Your task to perform on an android device: show emergency info Image 0: 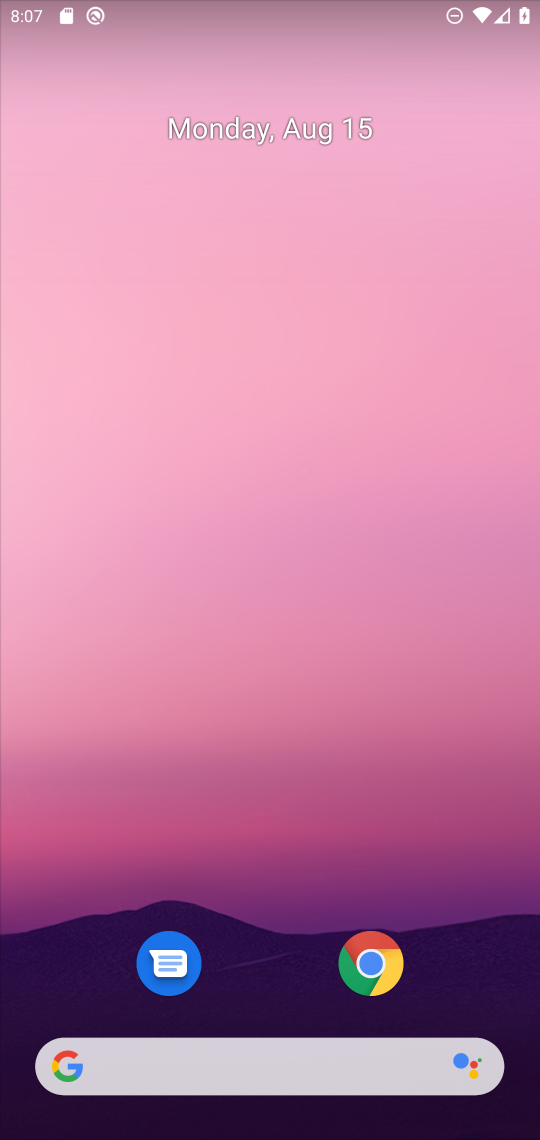
Step 0: drag from (316, 1004) to (375, 715)
Your task to perform on an android device: show emergency info Image 1: 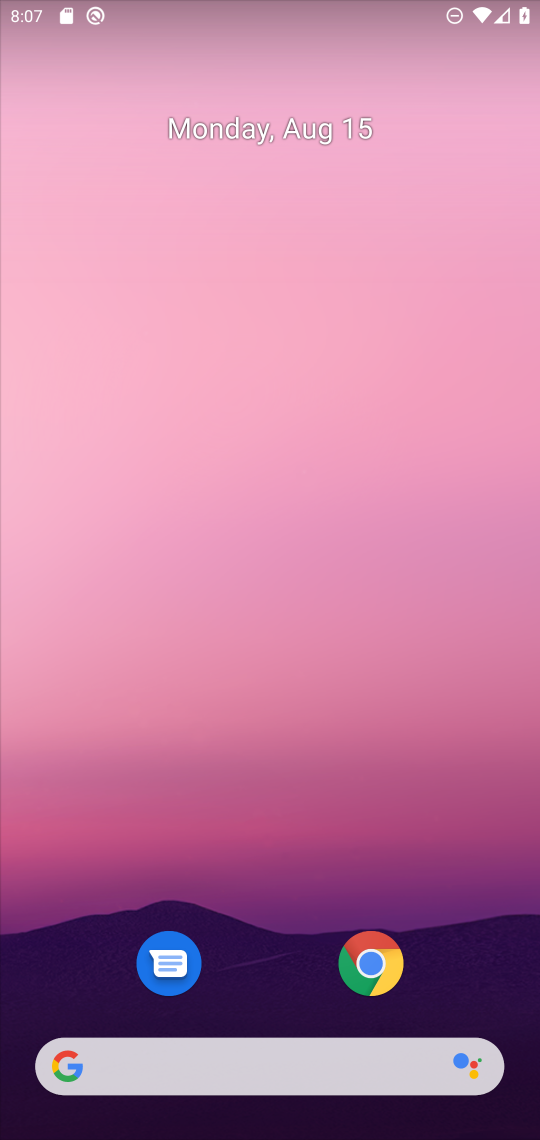
Step 1: drag from (251, 993) to (238, 46)
Your task to perform on an android device: show emergency info Image 2: 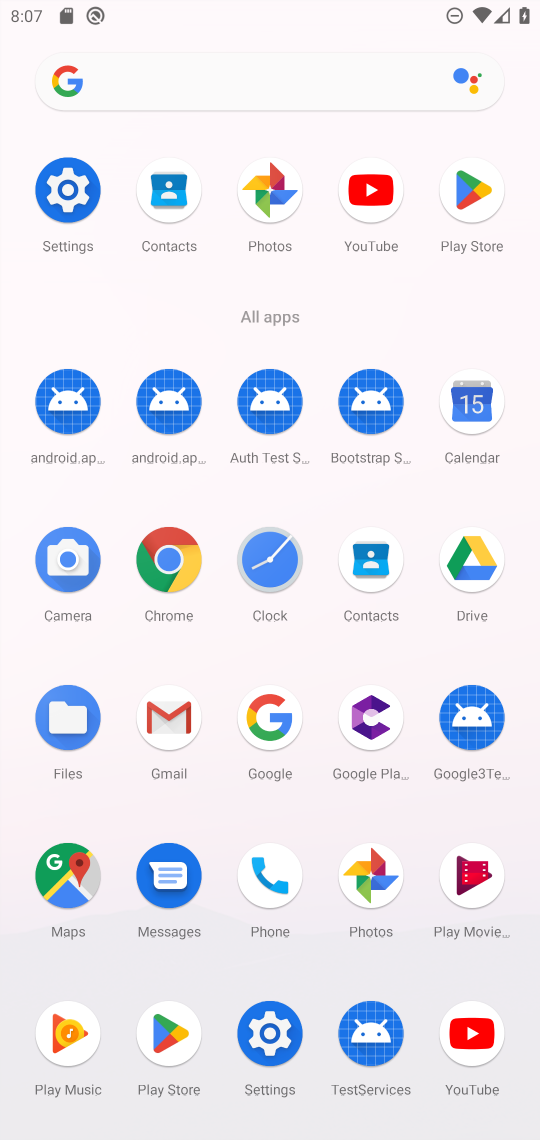
Step 2: click (70, 216)
Your task to perform on an android device: show emergency info Image 3: 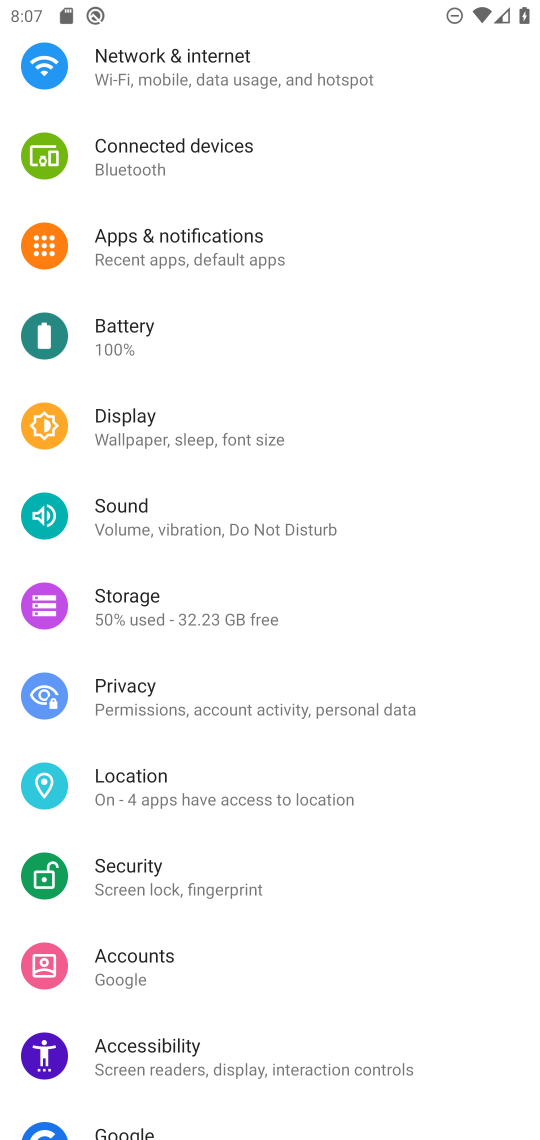
Step 3: drag from (179, 1073) to (236, 443)
Your task to perform on an android device: show emergency info Image 4: 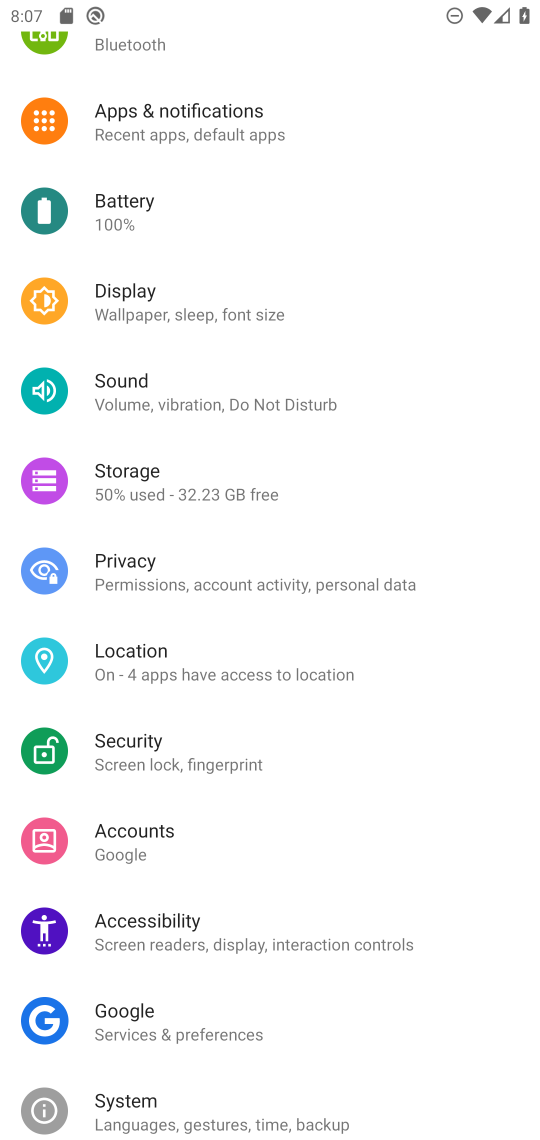
Step 4: click (117, 1110)
Your task to perform on an android device: show emergency info Image 5: 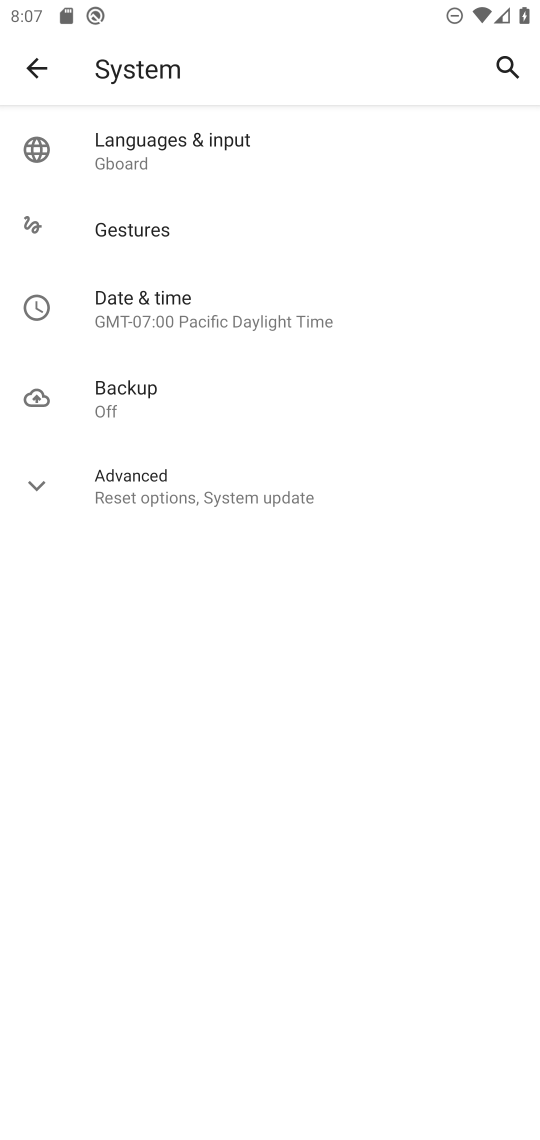
Step 5: click (37, 79)
Your task to perform on an android device: show emergency info Image 6: 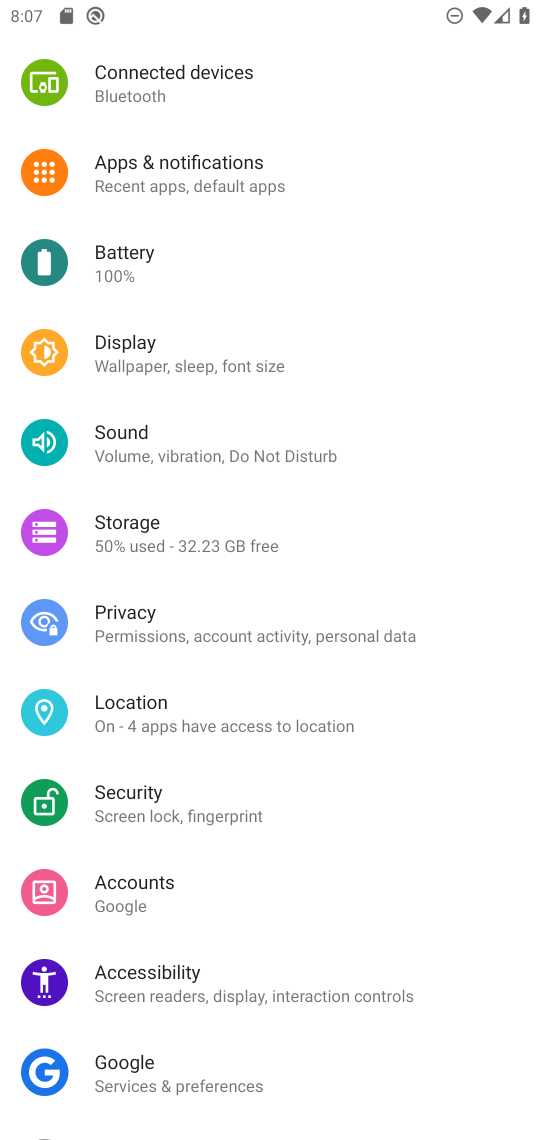
Step 6: drag from (285, 886) to (339, 230)
Your task to perform on an android device: show emergency info Image 7: 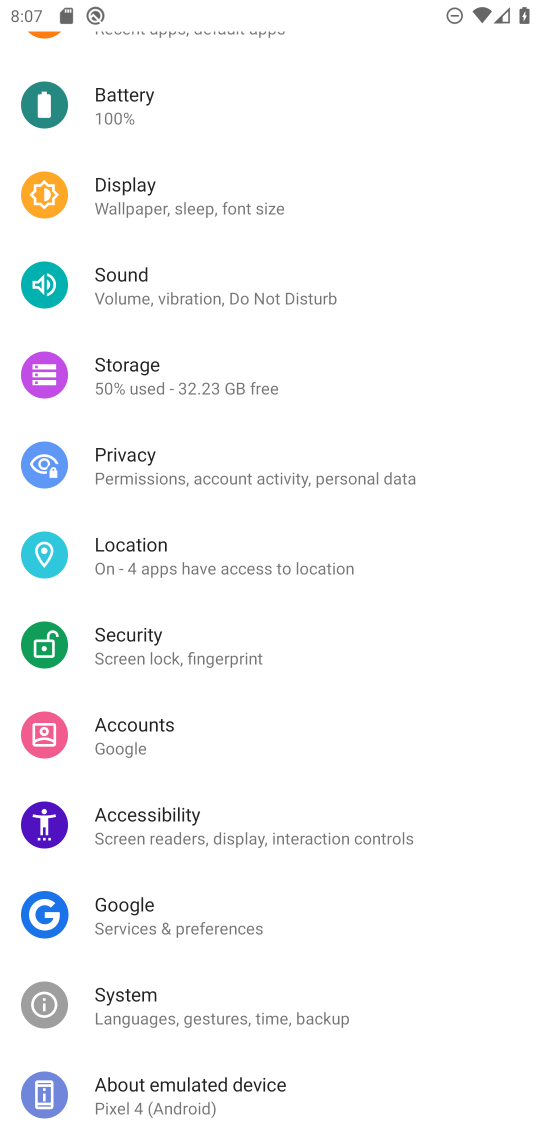
Step 7: click (289, 1103)
Your task to perform on an android device: show emergency info Image 8: 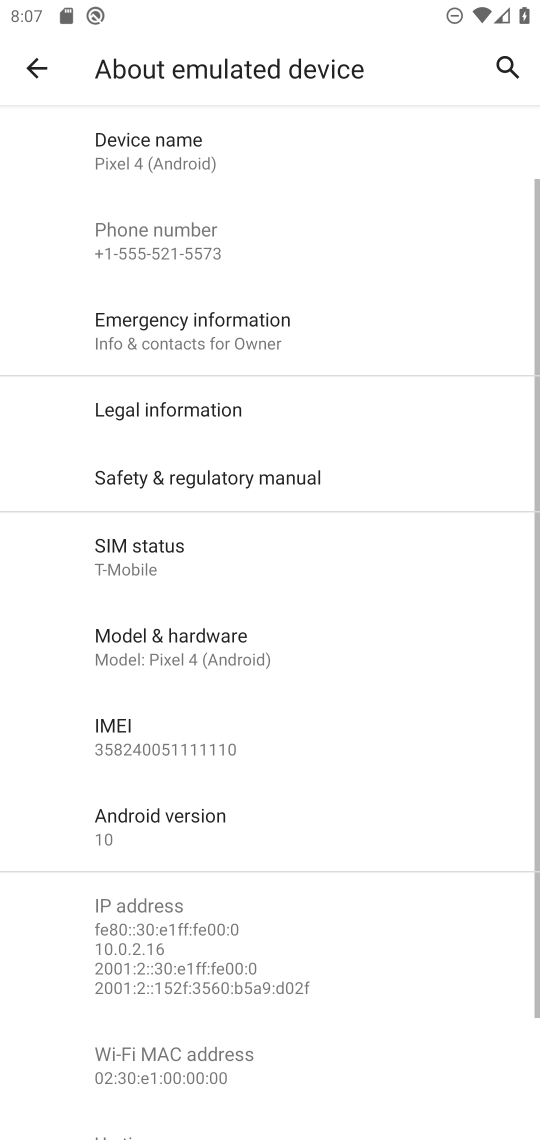
Step 8: click (396, 349)
Your task to perform on an android device: show emergency info Image 9: 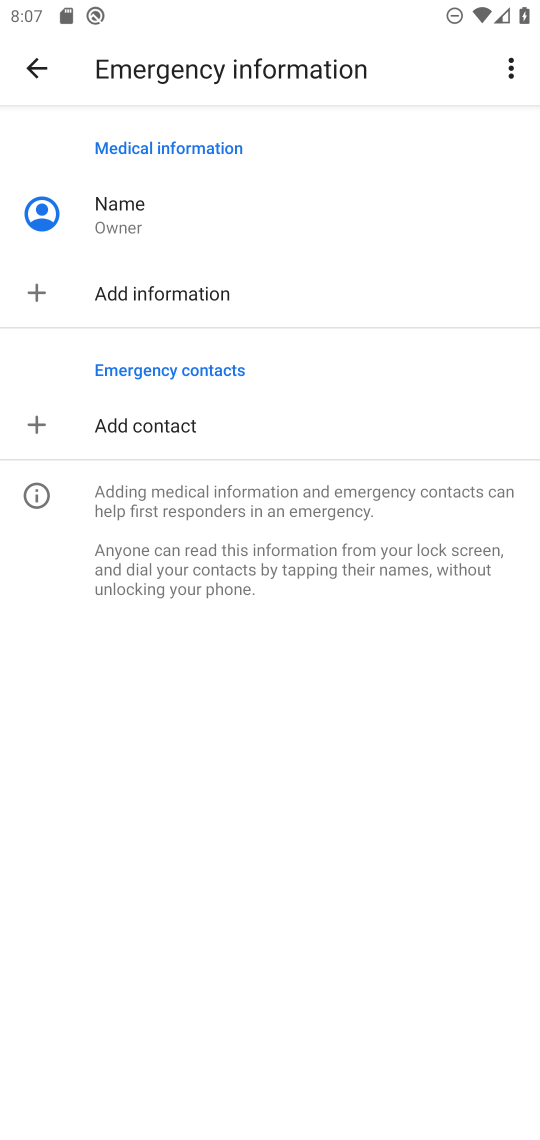
Step 9: task complete